Your task to perform on an android device: Open Chrome and go to the settings page Image 0: 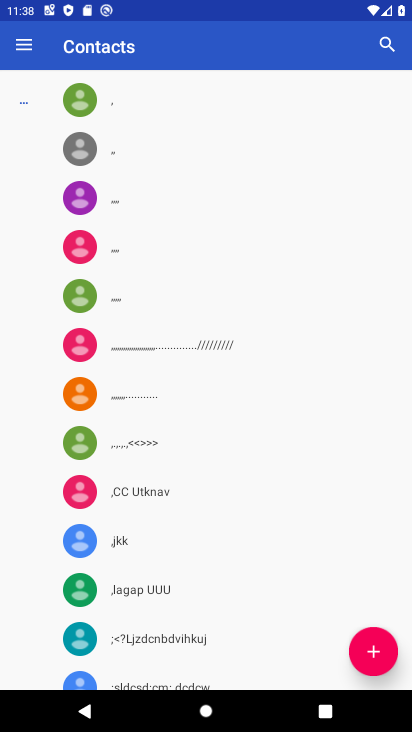
Step 0: press home button
Your task to perform on an android device: Open Chrome and go to the settings page Image 1: 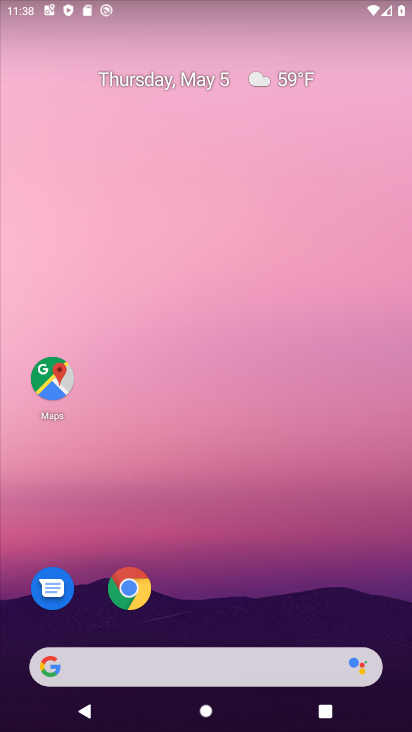
Step 1: drag from (255, 526) to (257, 154)
Your task to perform on an android device: Open Chrome and go to the settings page Image 2: 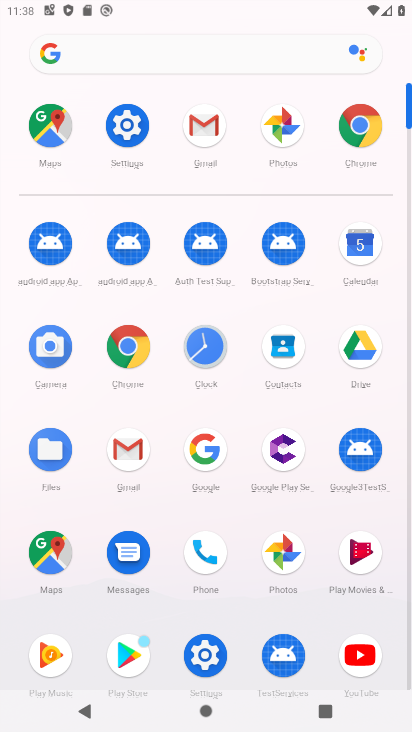
Step 2: click (367, 131)
Your task to perform on an android device: Open Chrome and go to the settings page Image 3: 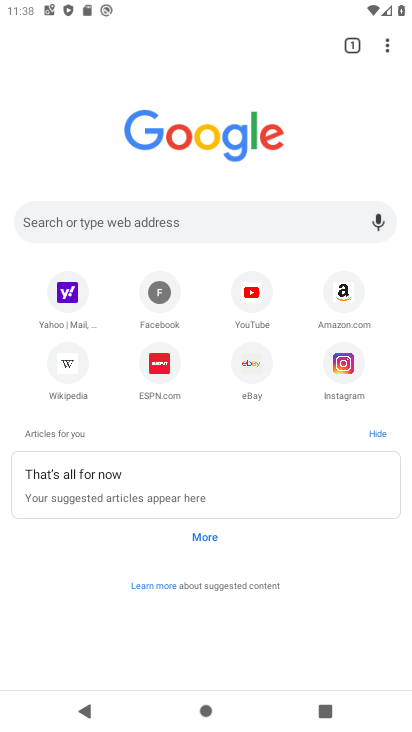
Step 3: task complete